Your task to perform on an android device: See recent photos Image 0: 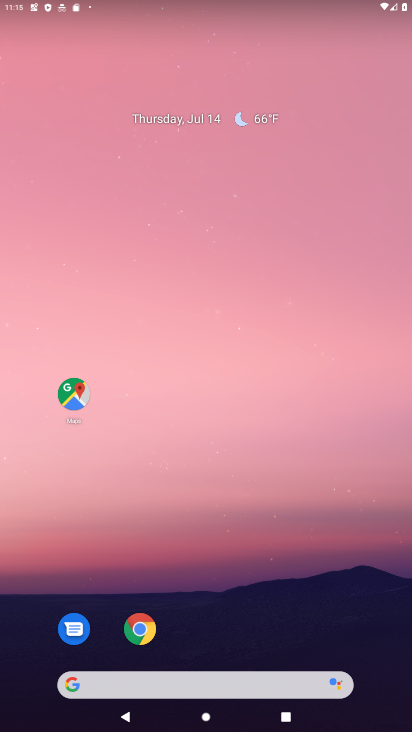
Step 0: press home button
Your task to perform on an android device: See recent photos Image 1: 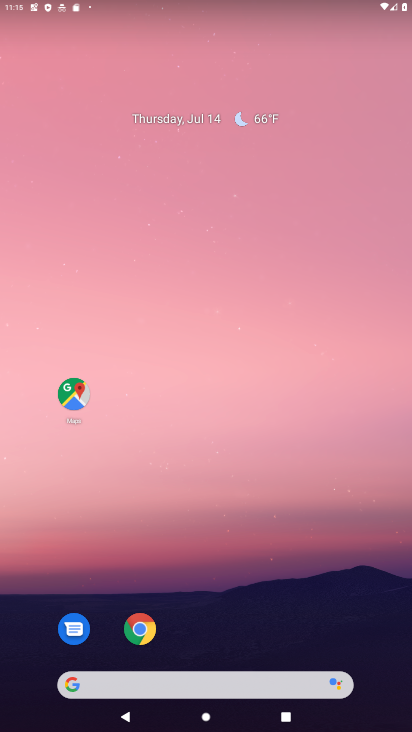
Step 1: drag from (269, 603) to (299, 152)
Your task to perform on an android device: See recent photos Image 2: 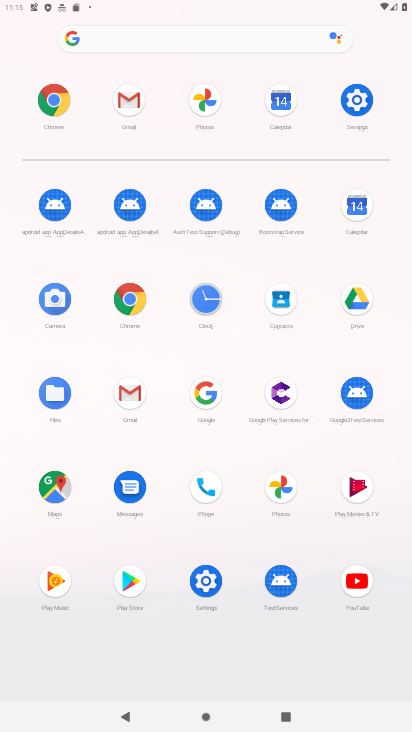
Step 2: click (281, 480)
Your task to perform on an android device: See recent photos Image 3: 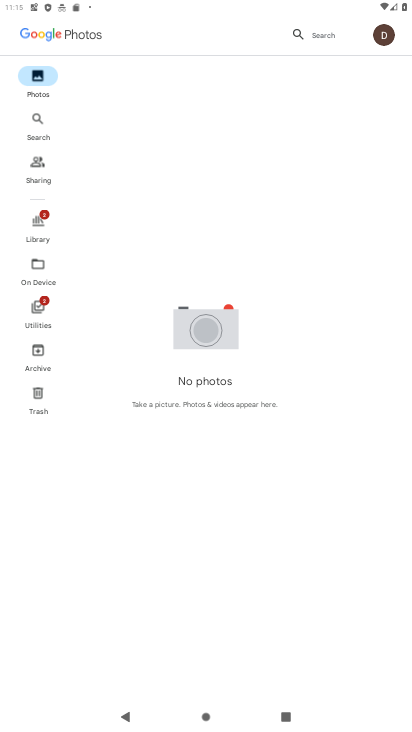
Step 3: click (39, 66)
Your task to perform on an android device: See recent photos Image 4: 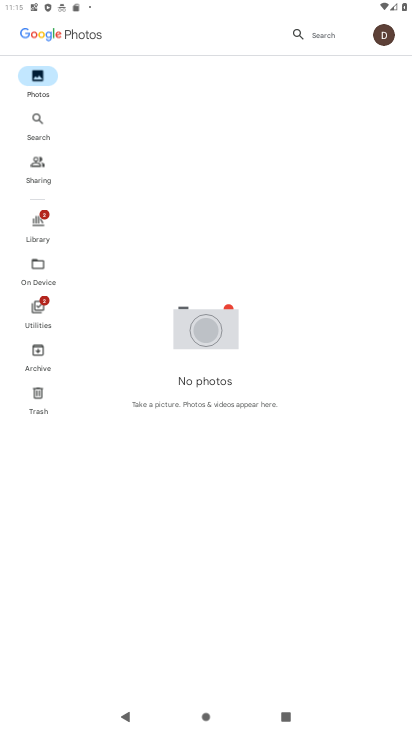
Step 4: click (42, 84)
Your task to perform on an android device: See recent photos Image 5: 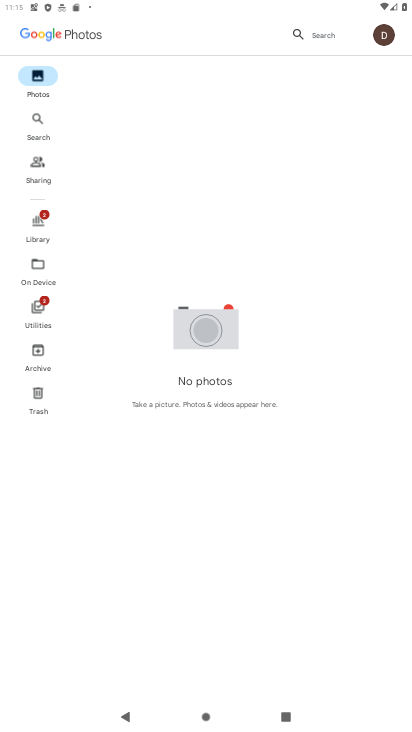
Step 5: task complete